Your task to perform on an android device: change the clock display to show seconds Image 0: 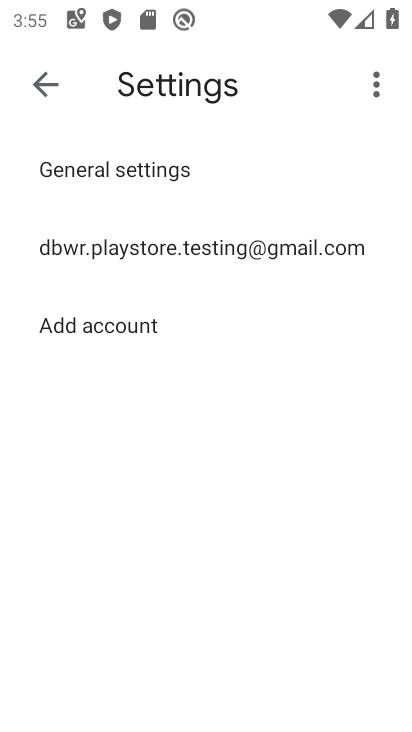
Step 0: press home button
Your task to perform on an android device: change the clock display to show seconds Image 1: 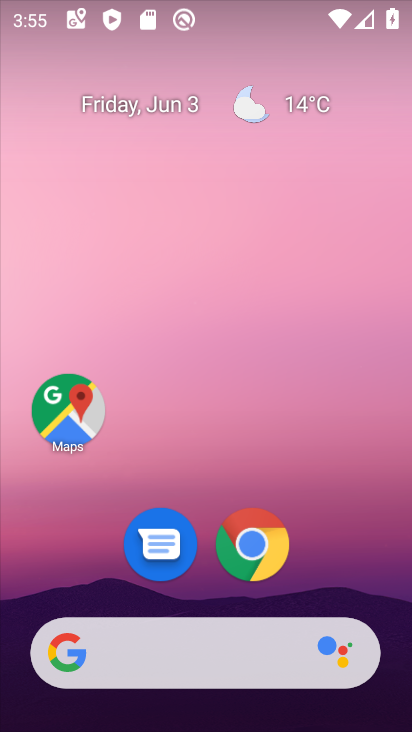
Step 1: drag from (395, 649) to (371, 119)
Your task to perform on an android device: change the clock display to show seconds Image 2: 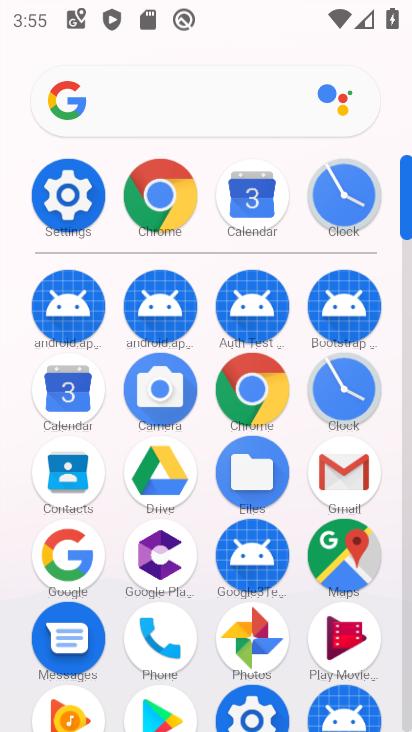
Step 2: click (342, 387)
Your task to perform on an android device: change the clock display to show seconds Image 3: 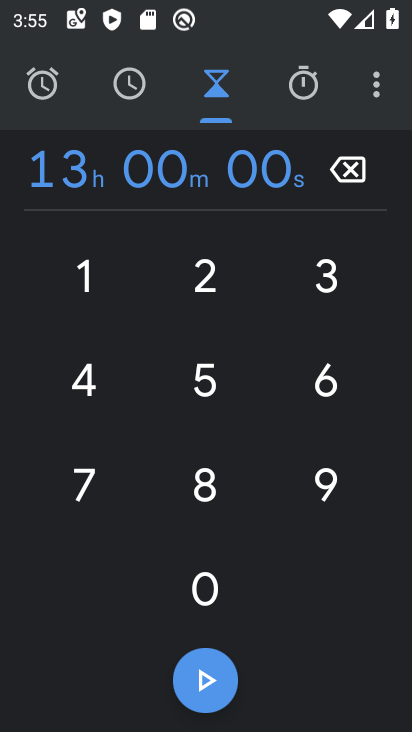
Step 3: click (372, 86)
Your task to perform on an android device: change the clock display to show seconds Image 4: 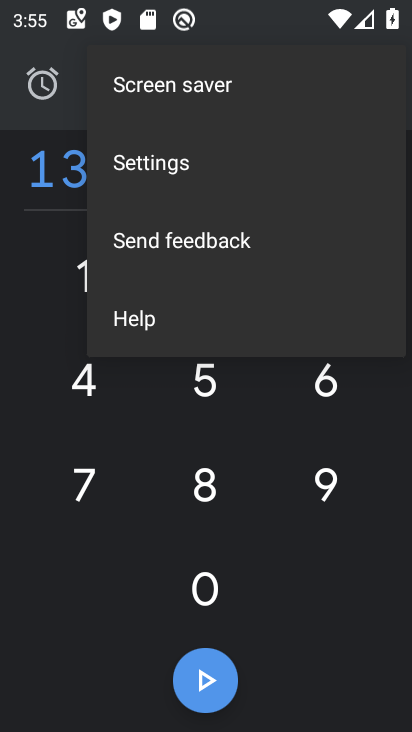
Step 4: click (182, 164)
Your task to perform on an android device: change the clock display to show seconds Image 5: 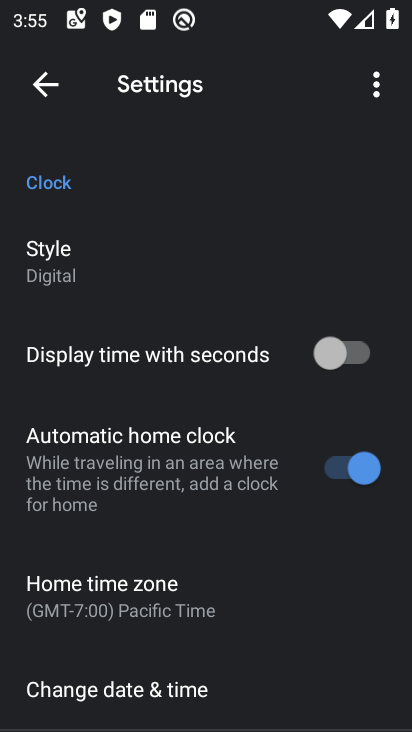
Step 5: click (368, 357)
Your task to perform on an android device: change the clock display to show seconds Image 6: 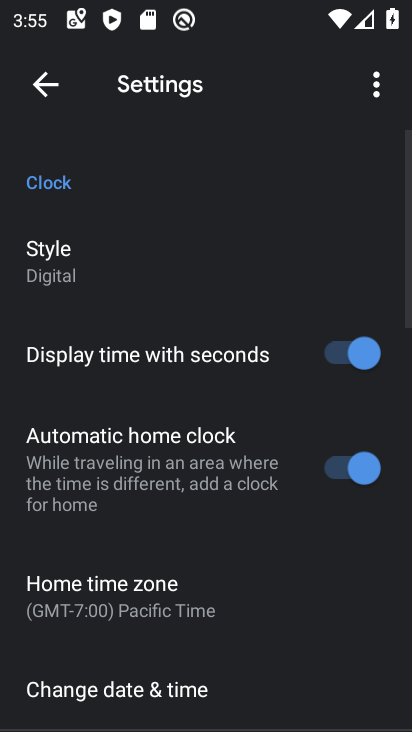
Step 6: task complete